Your task to perform on an android device: Clear the shopping cart on ebay. Add "rayovac triple a" to the cart on ebay, then select checkout. Image 0: 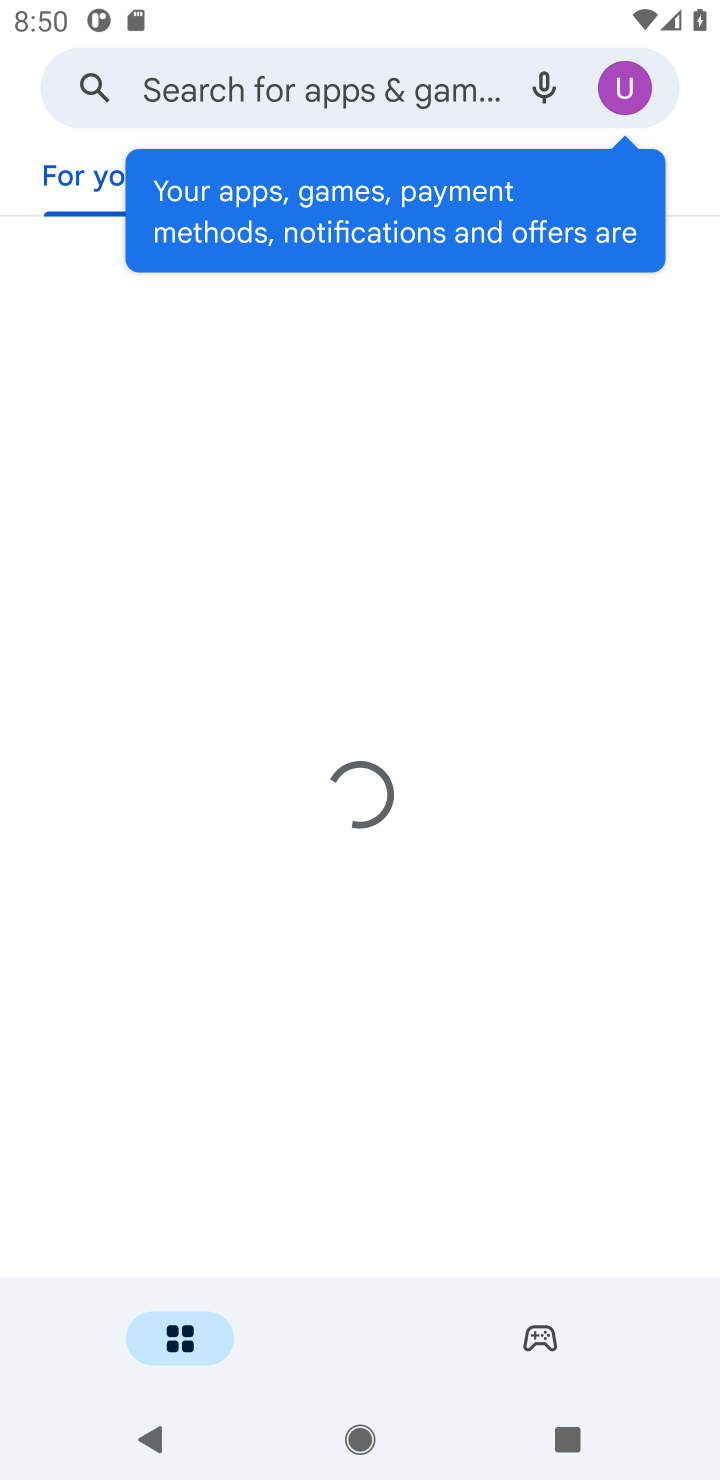
Step 0: press home button
Your task to perform on an android device: Clear the shopping cart on ebay. Add "rayovac triple a" to the cart on ebay, then select checkout. Image 1: 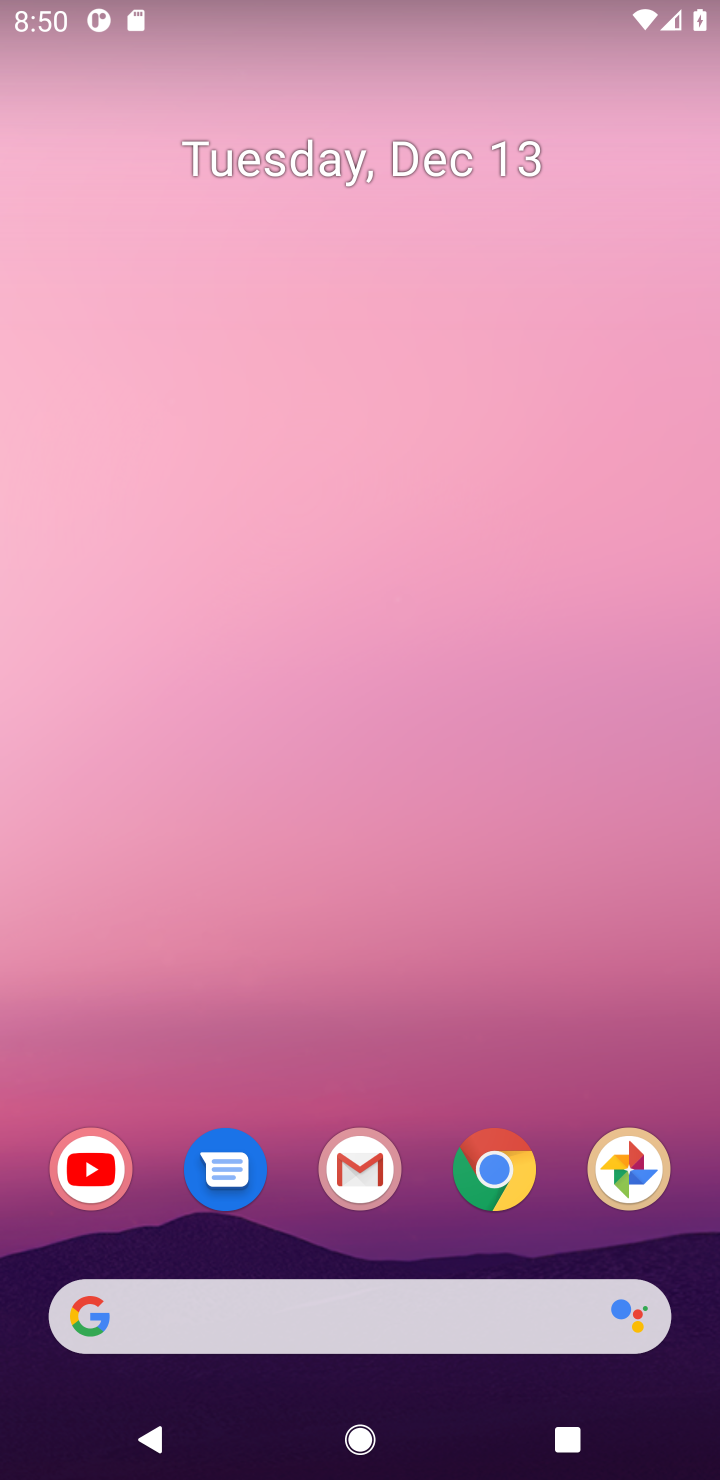
Step 1: click (464, 1182)
Your task to perform on an android device: Clear the shopping cart on ebay. Add "rayovac triple a" to the cart on ebay, then select checkout. Image 2: 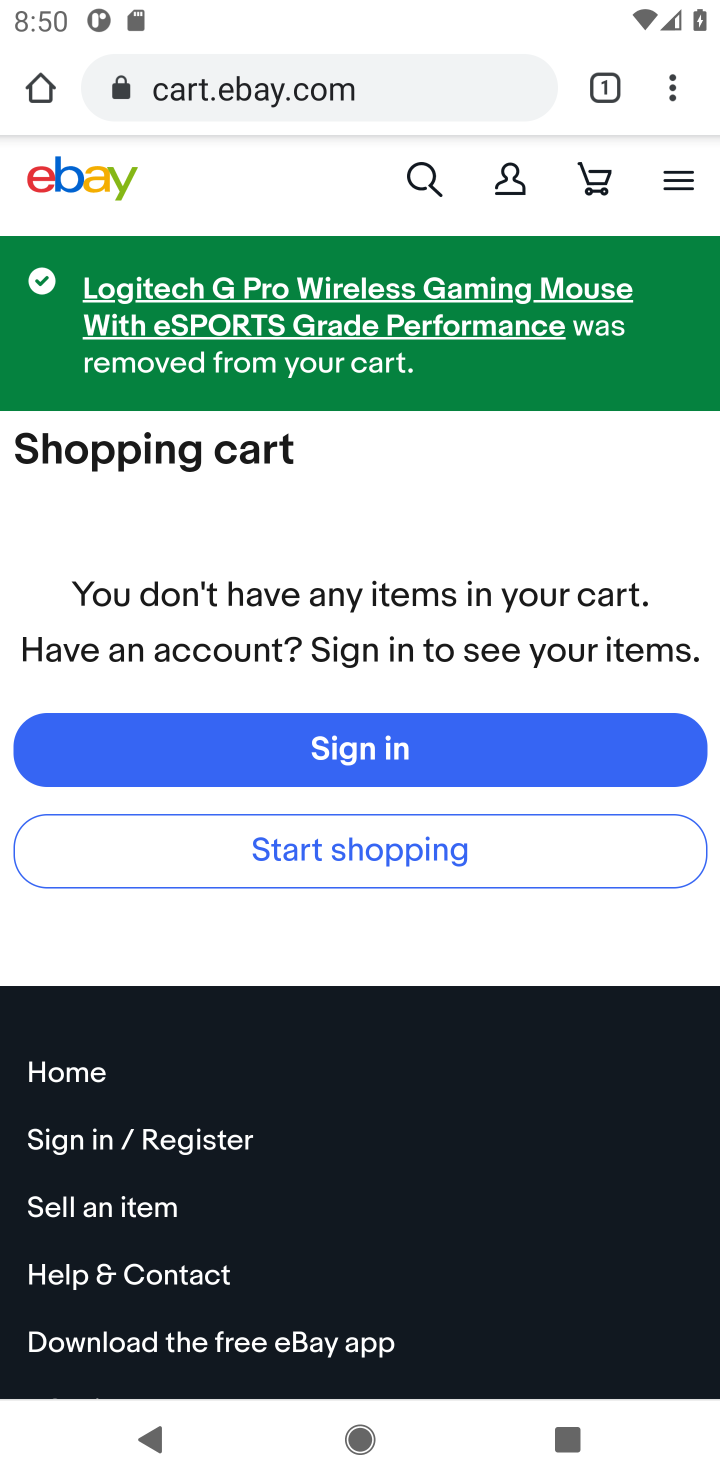
Step 2: click (428, 207)
Your task to perform on an android device: Clear the shopping cart on ebay. Add "rayovac triple a" to the cart on ebay, then select checkout. Image 3: 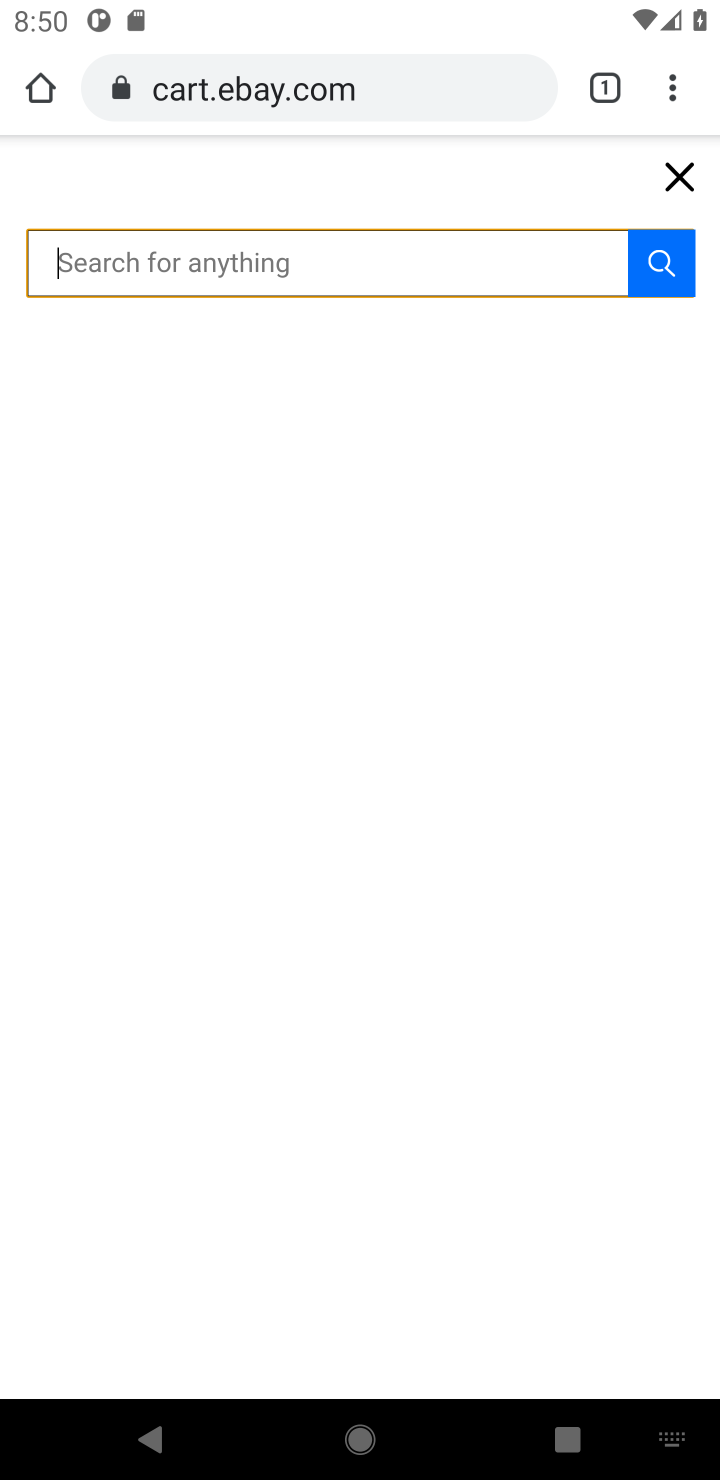
Step 3: type "rayvovac"
Your task to perform on an android device: Clear the shopping cart on ebay. Add "rayovac triple a" to the cart on ebay, then select checkout. Image 4: 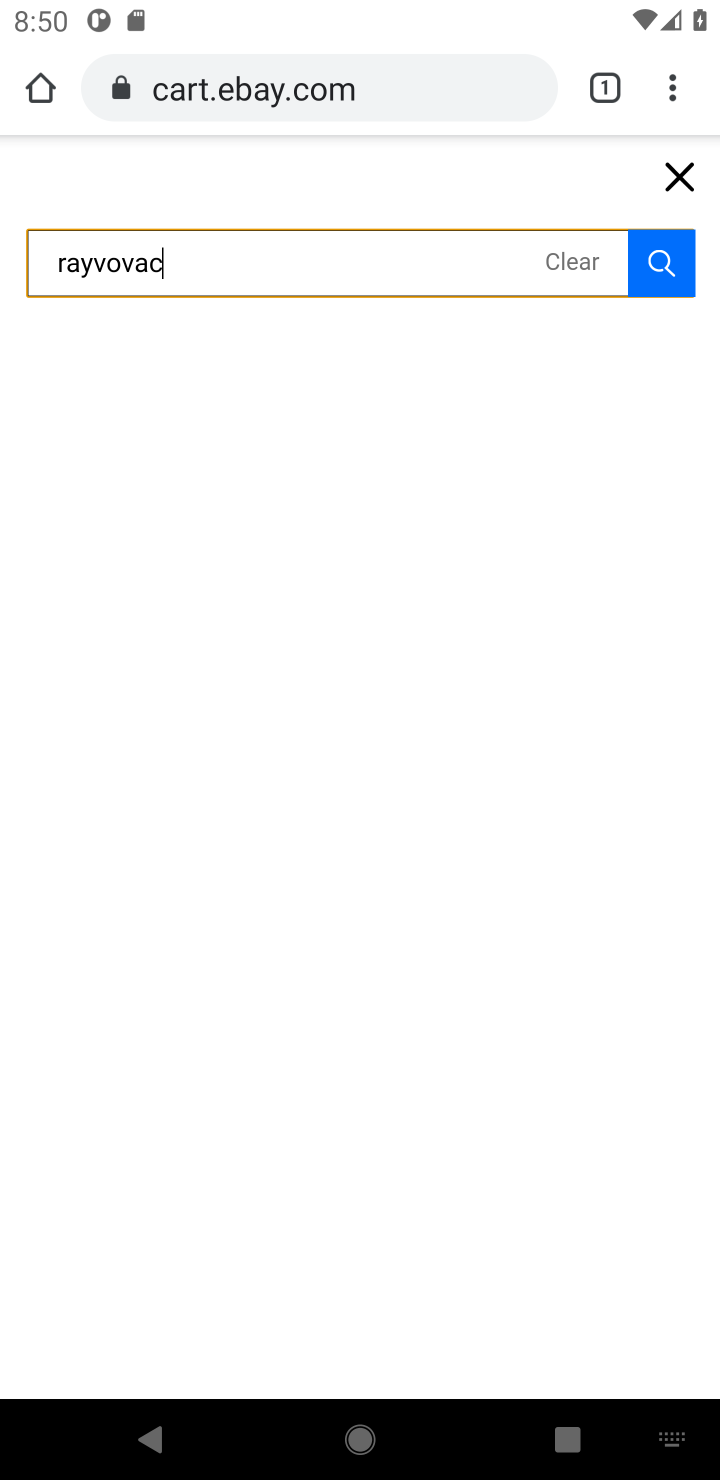
Step 4: click (666, 251)
Your task to perform on an android device: Clear the shopping cart on ebay. Add "rayovac triple a" to the cart on ebay, then select checkout. Image 5: 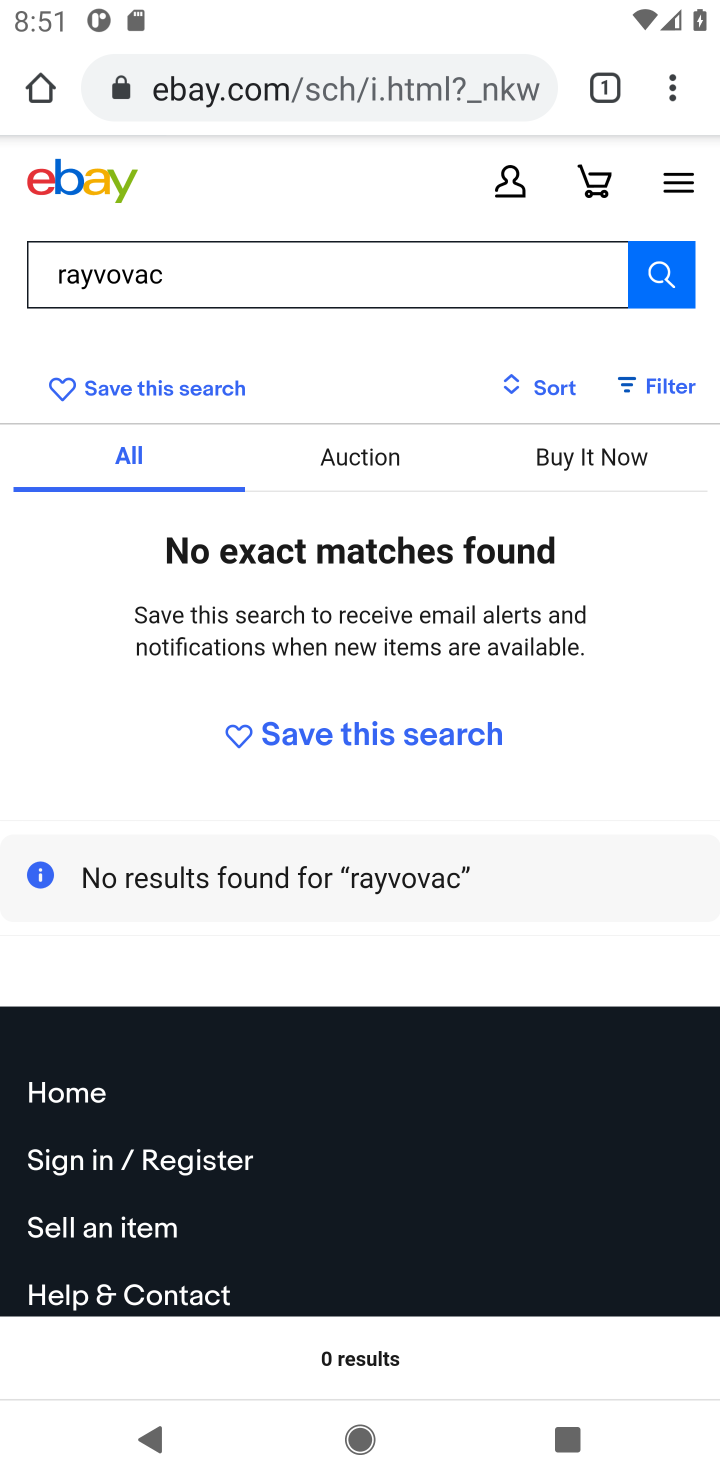
Step 5: task complete